Your task to perform on an android device: Open ESPN.com Image 0: 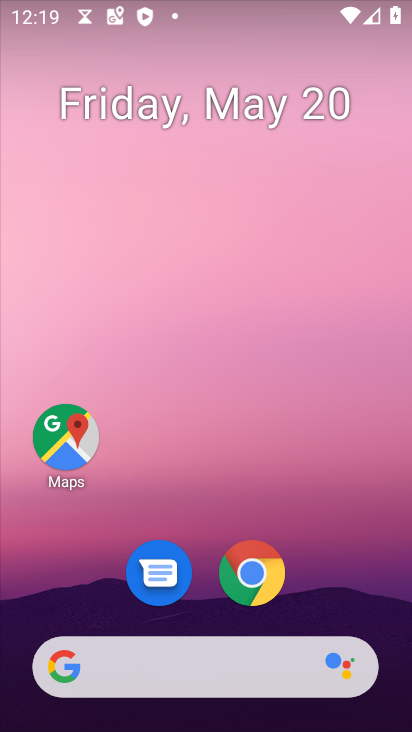
Step 0: click (251, 572)
Your task to perform on an android device: Open ESPN.com Image 1: 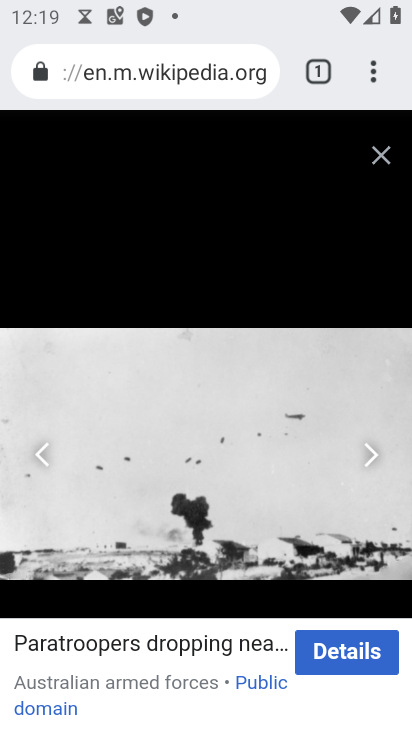
Step 1: click (200, 78)
Your task to perform on an android device: Open ESPN.com Image 2: 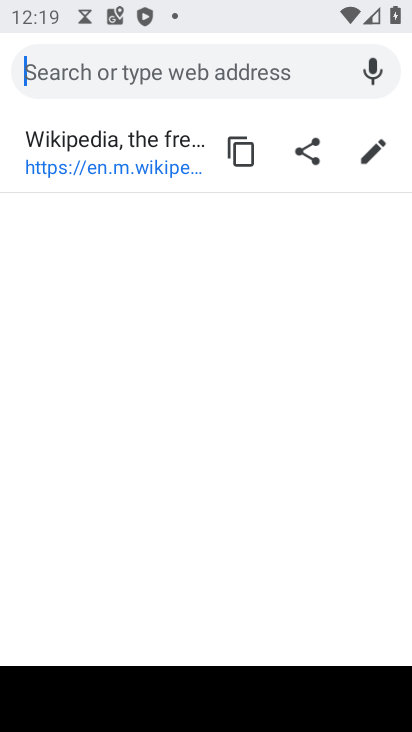
Step 2: type "Espn.com"
Your task to perform on an android device: Open ESPN.com Image 3: 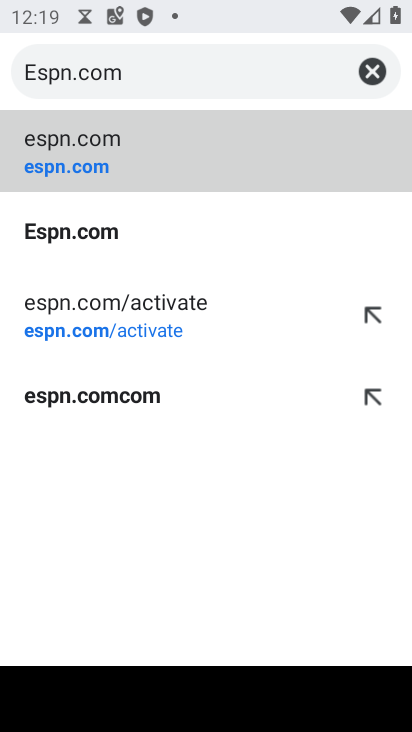
Step 3: click (63, 171)
Your task to perform on an android device: Open ESPN.com Image 4: 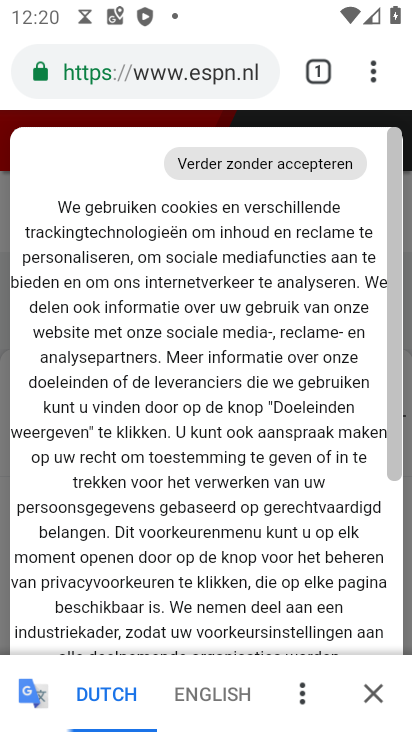
Step 4: task complete